Your task to perform on an android device: toggle sleep mode Image 0: 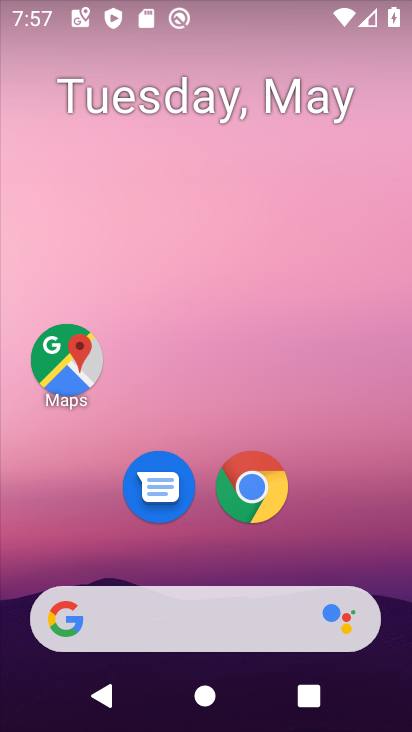
Step 0: drag from (365, 536) to (330, 194)
Your task to perform on an android device: toggle sleep mode Image 1: 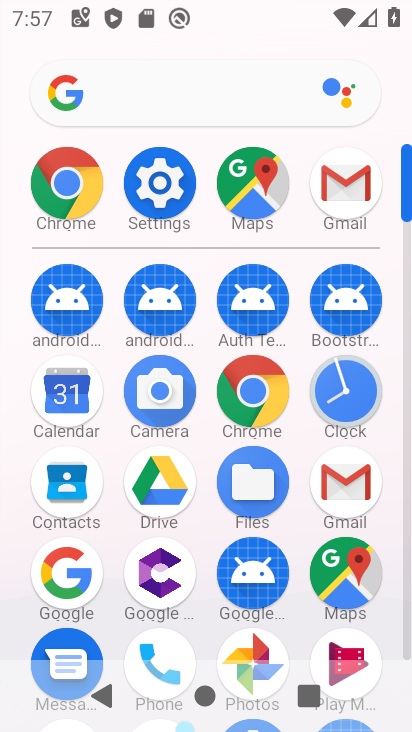
Step 1: click (177, 186)
Your task to perform on an android device: toggle sleep mode Image 2: 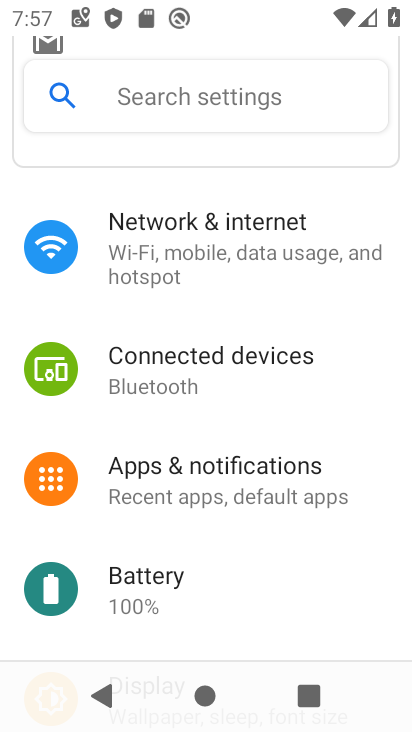
Step 2: drag from (370, 548) to (373, 442)
Your task to perform on an android device: toggle sleep mode Image 3: 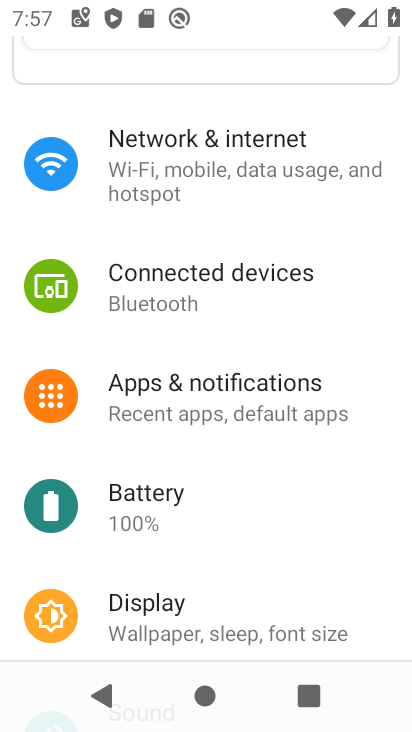
Step 3: drag from (371, 528) to (360, 388)
Your task to perform on an android device: toggle sleep mode Image 4: 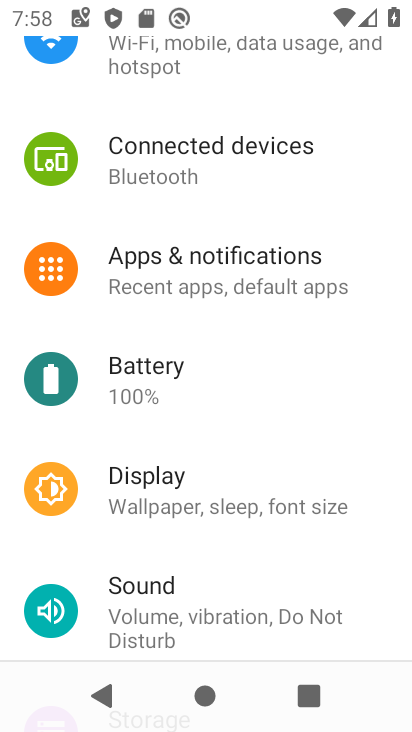
Step 4: drag from (342, 440) to (340, 328)
Your task to perform on an android device: toggle sleep mode Image 5: 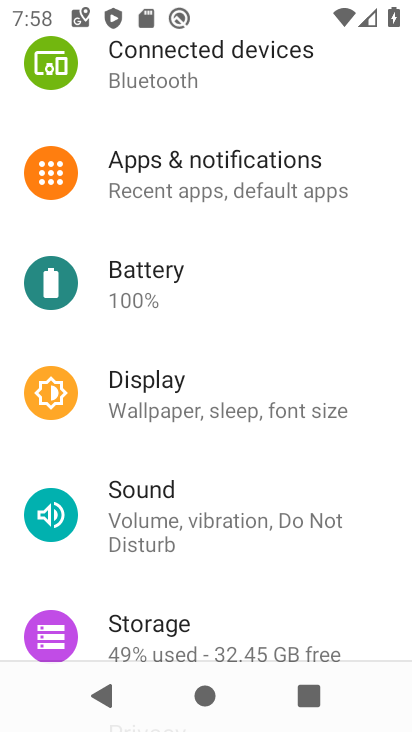
Step 5: drag from (359, 533) to (357, 482)
Your task to perform on an android device: toggle sleep mode Image 6: 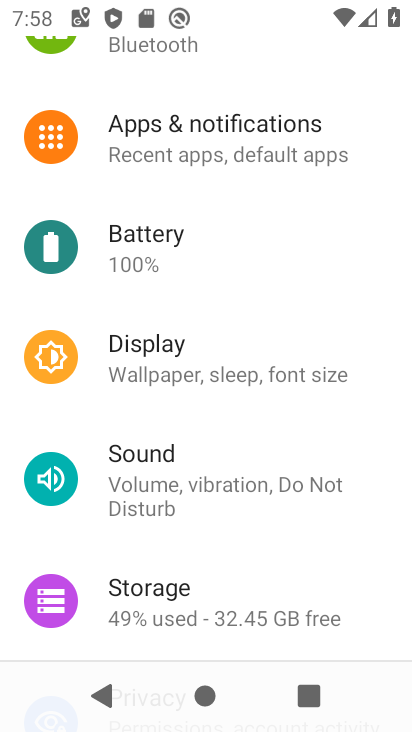
Step 6: drag from (363, 556) to (358, 426)
Your task to perform on an android device: toggle sleep mode Image 7: 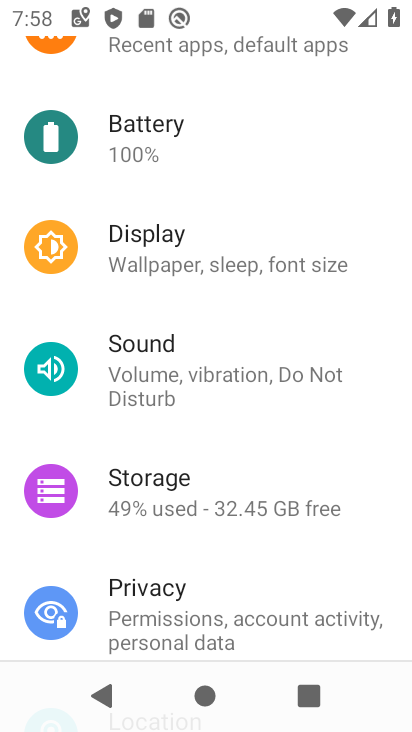
Step 7: drag from (340, 532) to (349, 477)
Your task to perform on an android device: toggle sleep mode Image 8: 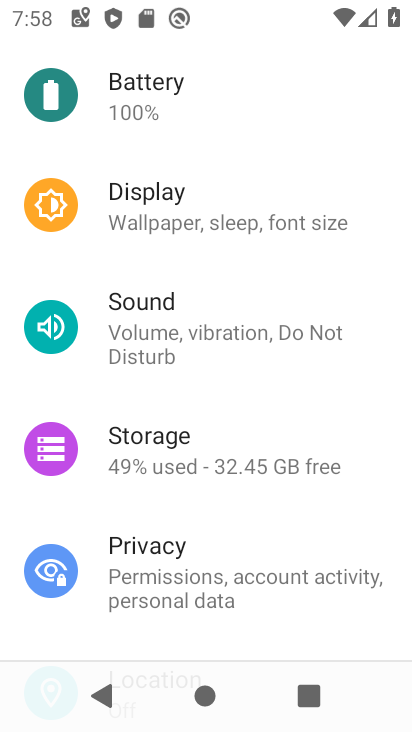
Step 8: click (304, 221)
Your task to perform on an android device: toggle sleep mode Image 9: 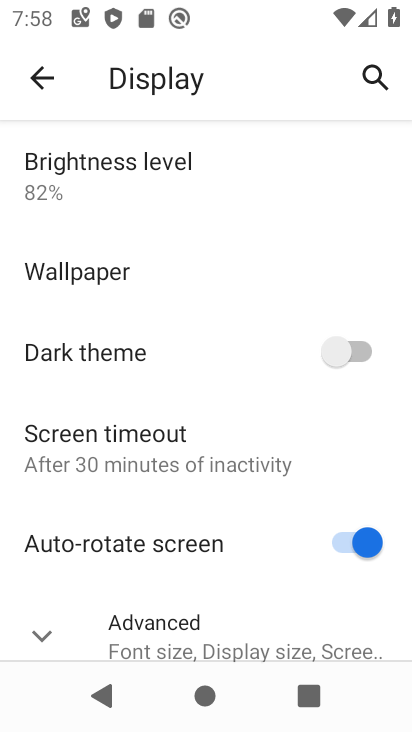
Step 9: click (141, 637)
Your task to perform on an android device: toggle sleep mode Image 10: 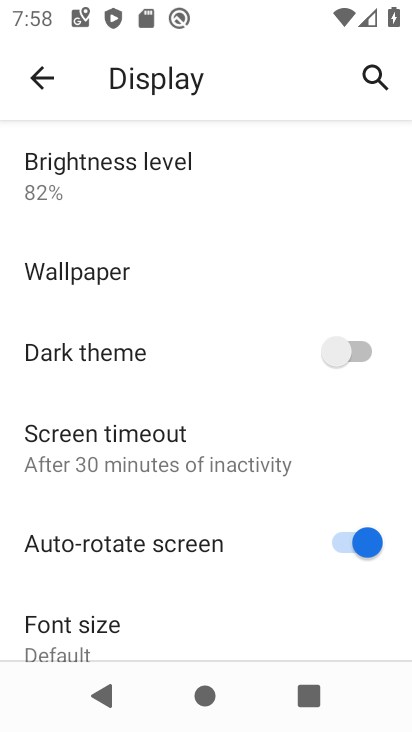
Step 10: task complete